Your task to perform on an android device: turn notification dots on Image 0: 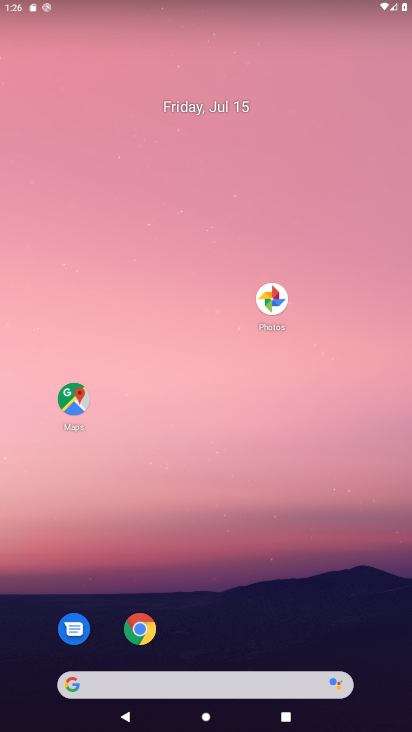
Step 0: drag from (306, 638) to (306, 245)
Your task to perform on an android device: turn notification dots on Image 1: 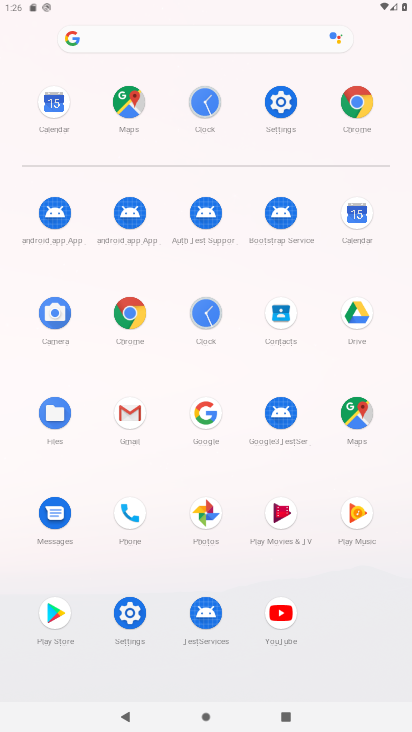
Step 1: click (277, 103)
Your task to perform on an android device: turn notification dots on Image 2: 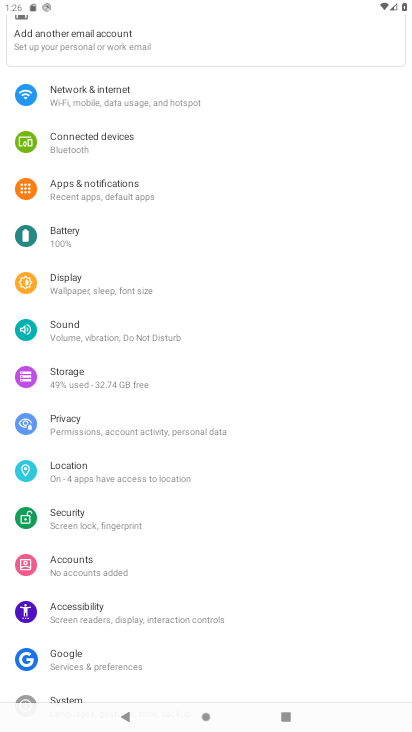
Step 2: drag from (201, 97) to (182, 709)
Your task to perform on an android device: turn notification dots on Image 3: 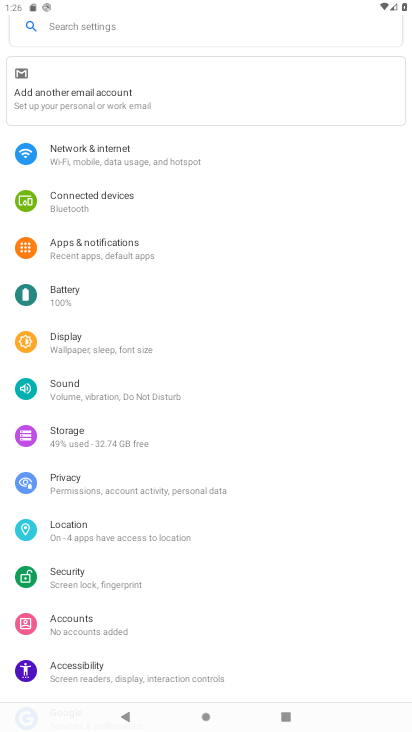
Step 3: click (150, 34)
Your task to perform on an android device: turn notification dots on Image 4: 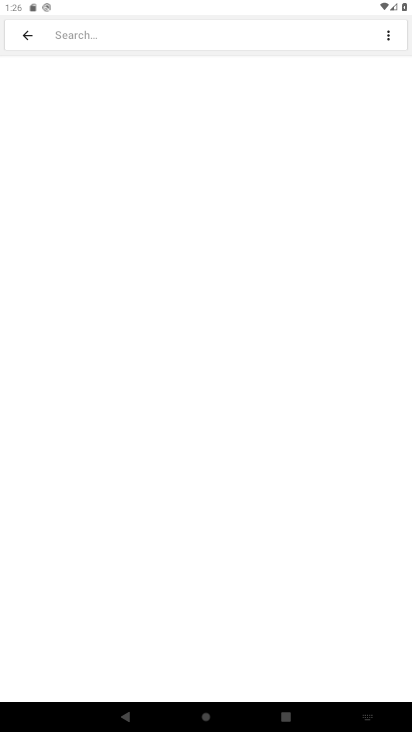
Step 4: type "notification dots "
Your task to perform on an android device: turn notification dots on Image 5: 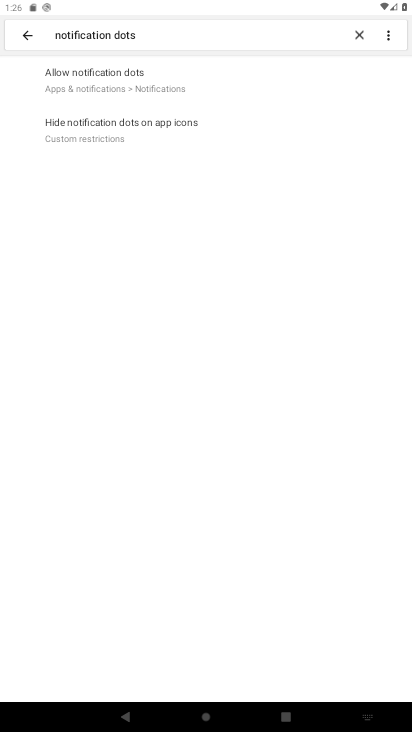
Step 5: click (131, 67)
Your task to perform on an android device: turn notification dots on Image 6: 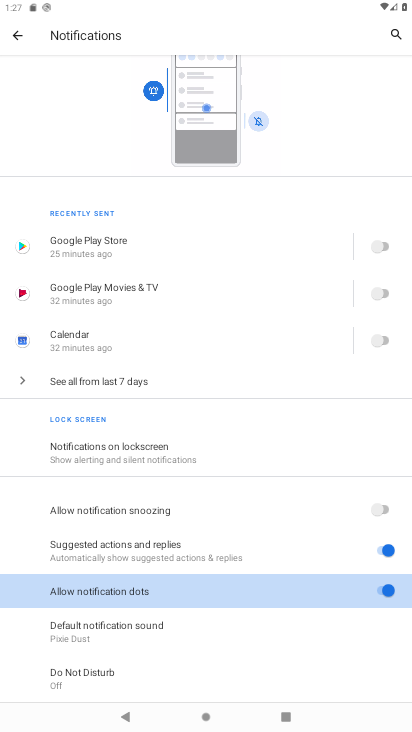
Step 6: task complete